Your task to perform on an android device: Open CNN.com Image 0: 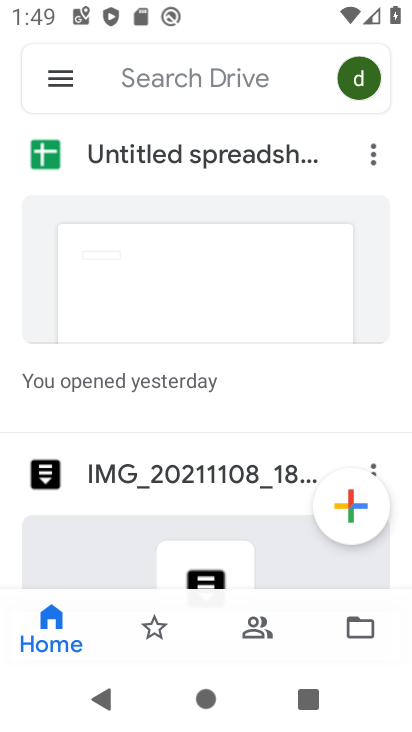
Step 0: press home button
Your task to perform on an android device: Open CNN.com Image 1: 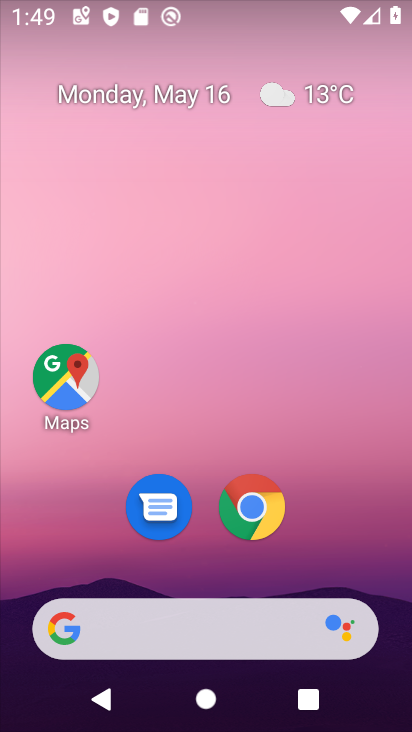
Step 1: drag from (380, 562) to (344, 80)
Your task to perform on an android device: Open CNN.com Image 2: 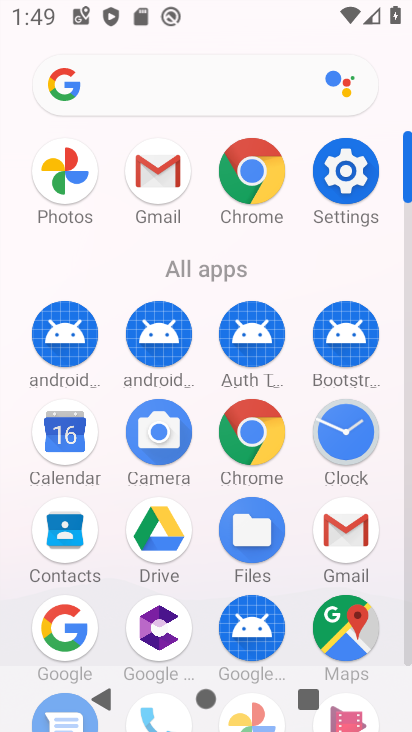
Step 2: click (261, 437)
Your task to perform on an android device: Open CNN.com Image 3: 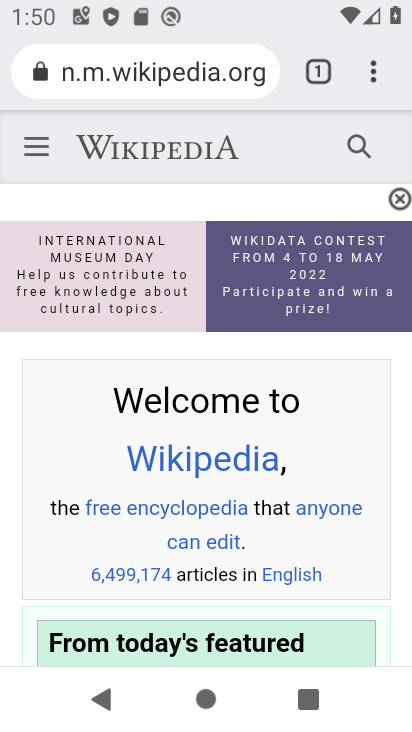
Step 3: type "cnn.com"
Your task to perform on an android device: Open CNN.com Image 4: 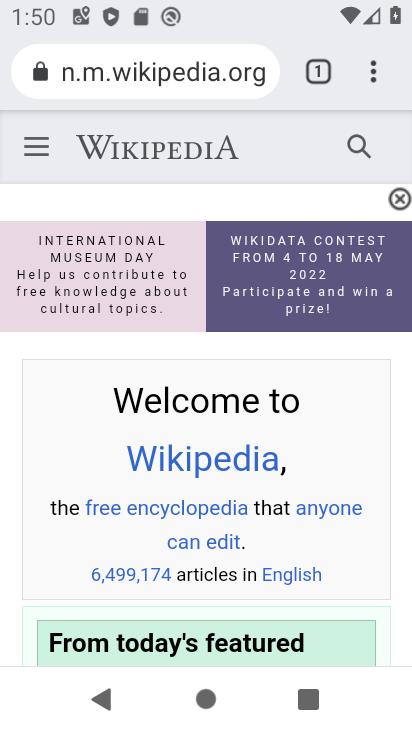
Step 4: click (226, 77)
Your task to perform on an android device: Open CNN.com Image 5: 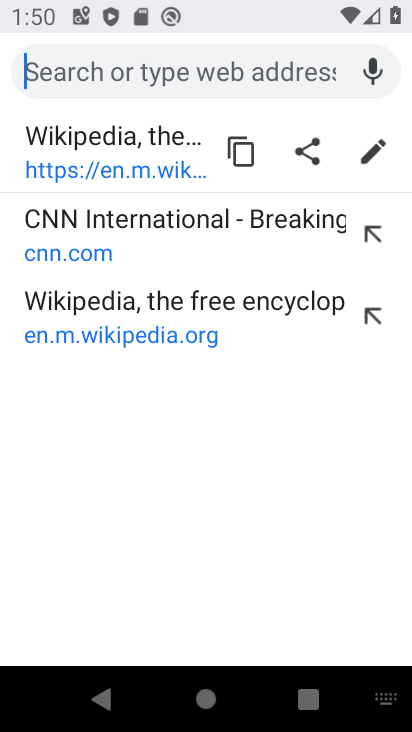
Step 5: type "cnn.com"
Your task to perform on an android device: Open CNN.com Image 6: 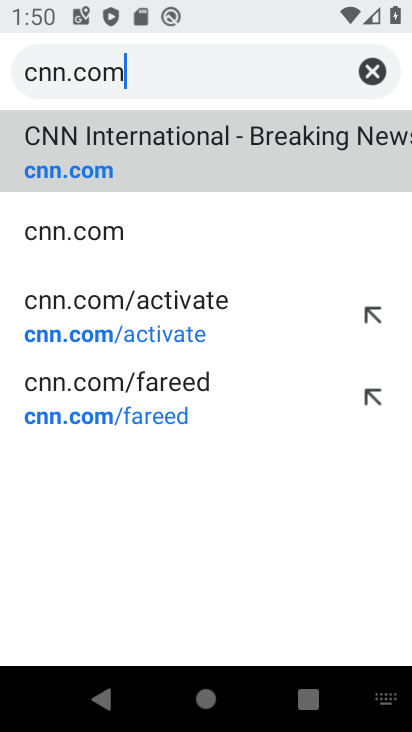
Step 6: click (119, 158)
Your task to perform on an android device: Open CNN.com Image 7: 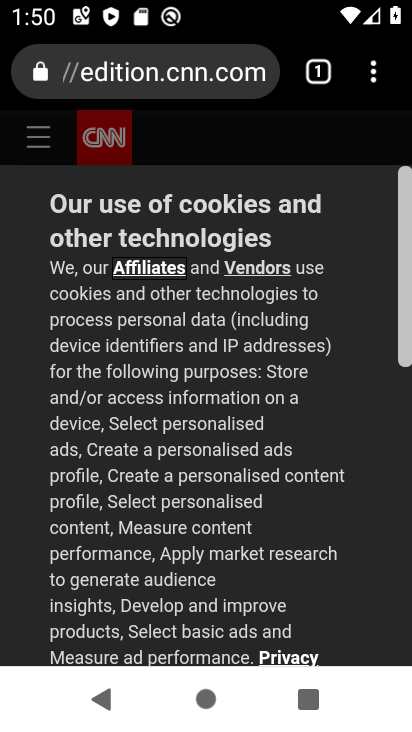
Step 7: task complete